Your task to perform on an android device: empty trash in google photos Image 0: 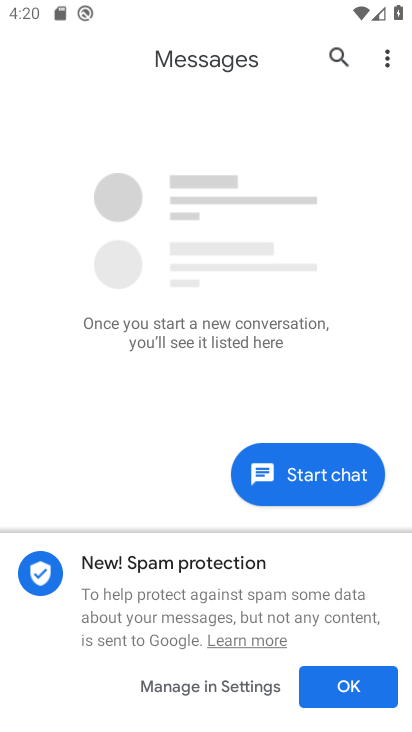
Step 0: press home button
Your task to perform on an android device: empty trash in google photos Image 1: 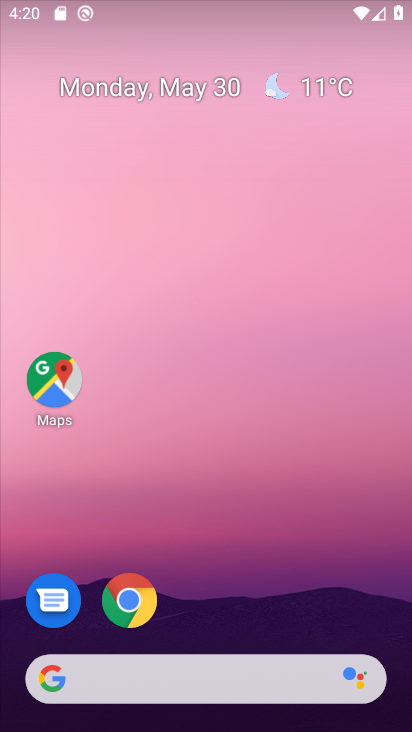
Step 1: drag from (281, 582) to (200, 126)
Your task to perform on an android device: empty trash in google photos Image 2: 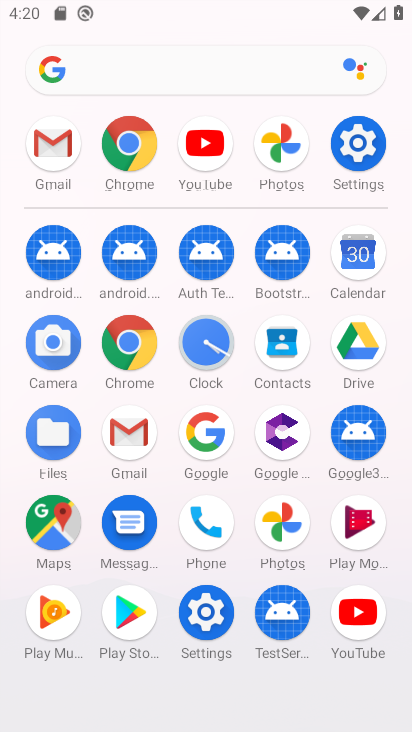
Step 2: click (266, 163)
Your task to perform on an android device: empty trash in google photos Image 3: 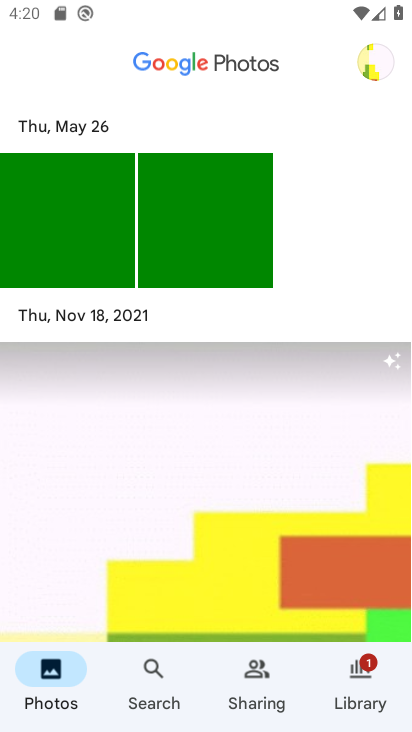
Step 3: task complete